Your task to perform on an android device: all mails in gmail Image 0: 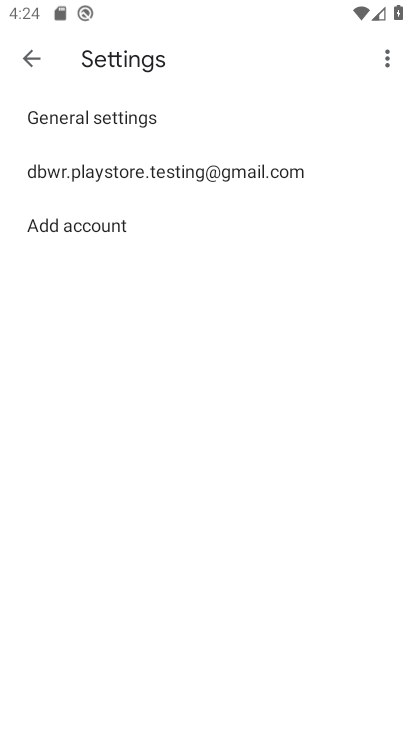
Step 0: press home button
Your task to perform on an android device: all mails in gmail Image 1: 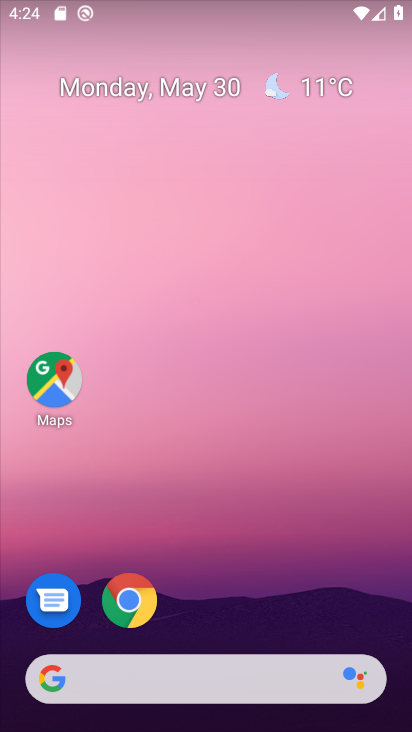
Step 1: drag from (336, 201) to (349, 0)
Your task to perform on an android device: all mails in gmail Image 2: 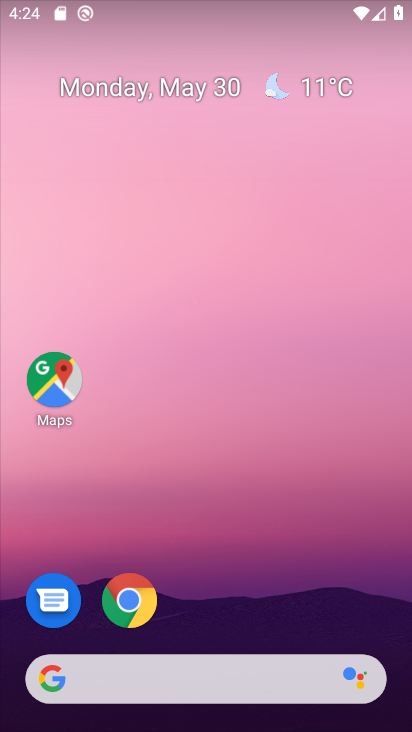
Step 2: drag from (295, 541) to (302, 99)
Your task to perform on an android device: all mails in gmail Image 3: 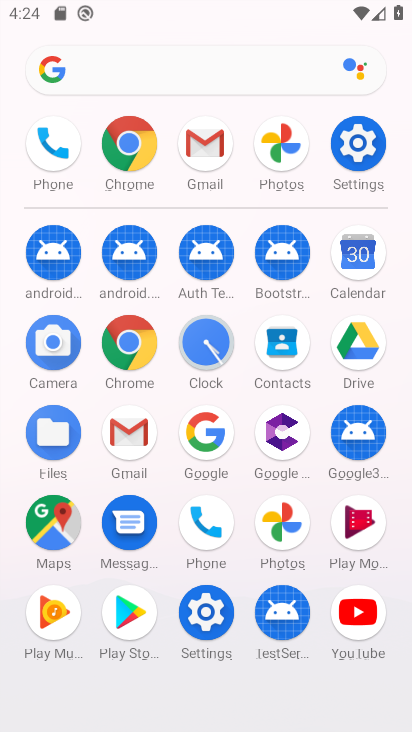
Step 3: click (224, 140)
Your task to perform on an android device: all mails in gmail Image 4: 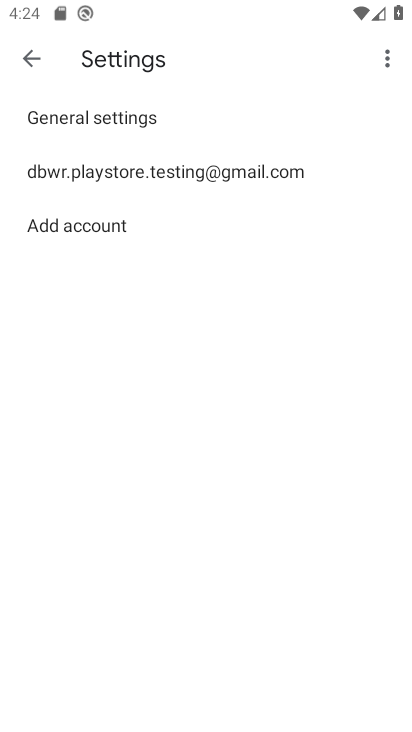
Step 4: click (26, 51)
Your task to perform on an android device: all mails in gmail Image 5: 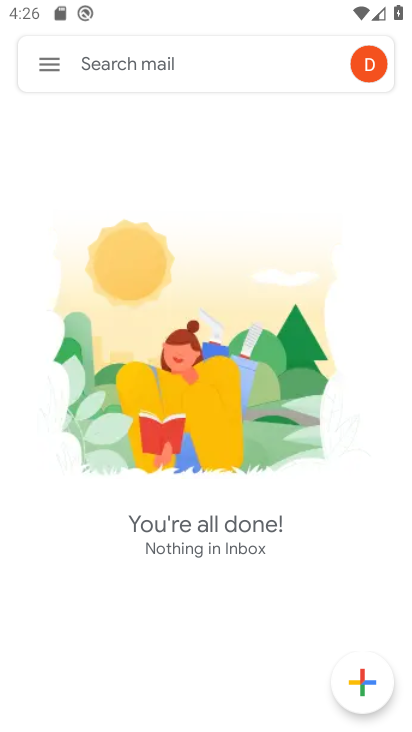
Step 5: click (39, 74)
Your task to perform on an android device: all mails in gmail Image 6: 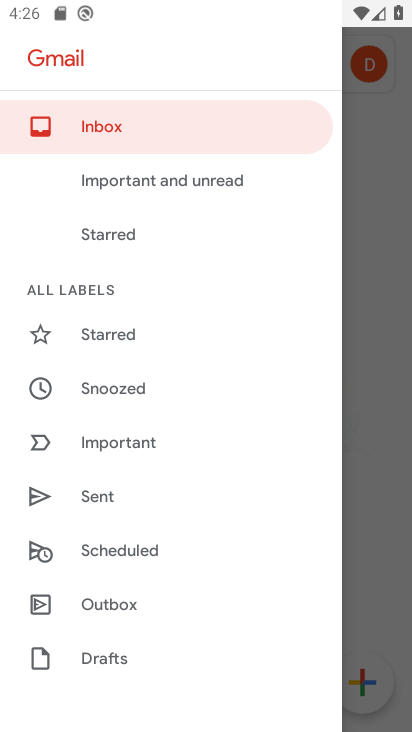
Step 6: drag from (164, 547) to (223, 63)
Your task to perform on an android device: all mails in gmail Image 7: 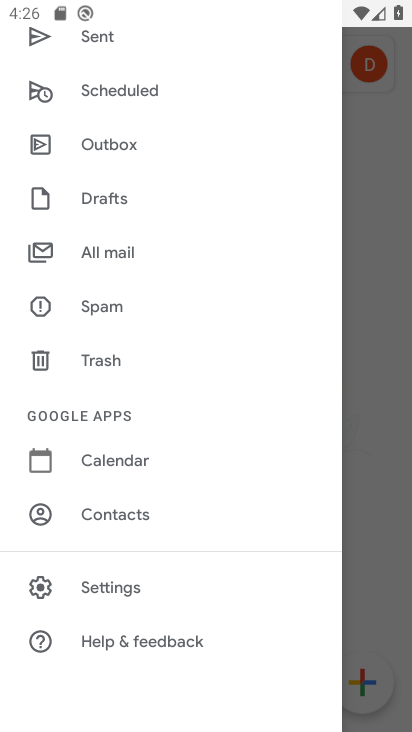
Step 7: click (135, 255)
Your task to perform on an android device: all mails in gmail Image 8: 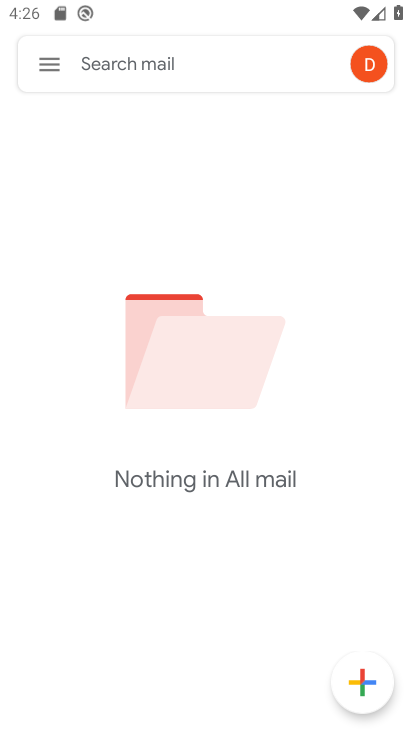
Step 8: task complete